Your task to perform on an android device: change the clock display to show seconds Image 0: 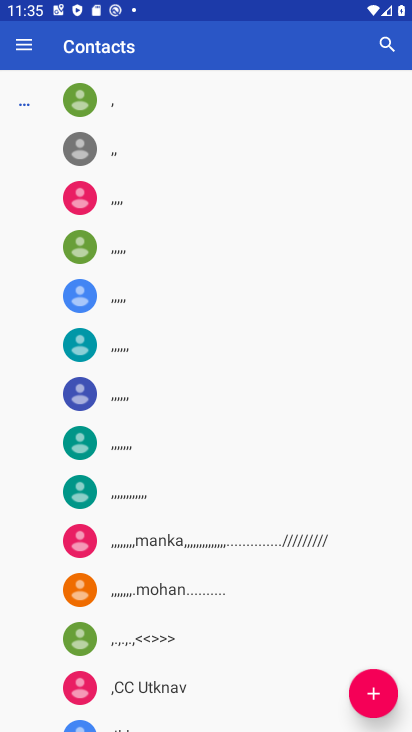
Step 0: press back button
Your task to perform on an android device: change the clock display to show seconds Image 1: 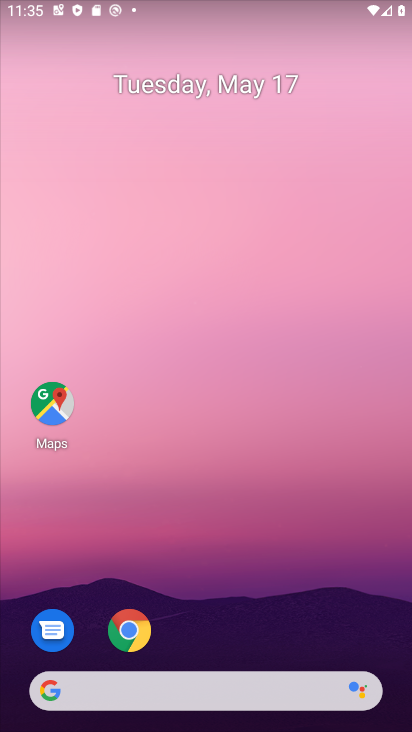
Step 1: drag from (238, 637) to (270, 162)
Your task to perform on an android device: change the clock display to show seconds Image 2: 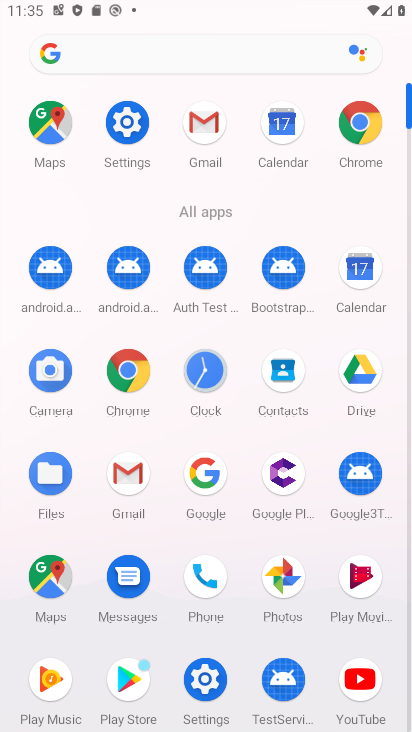
Step 2: click (196, 363)
Your task to perform on an android device: change the clock display to show seconds Image 3: 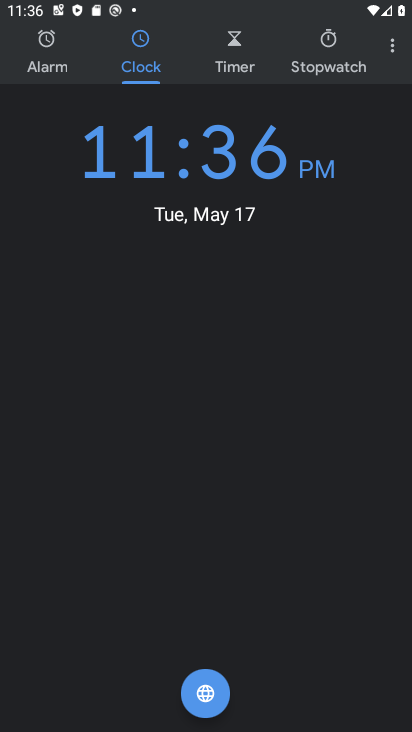
Step 3: click (392, 43)
Your task to perform on an android device: change the clock display to show seconds Image 4: 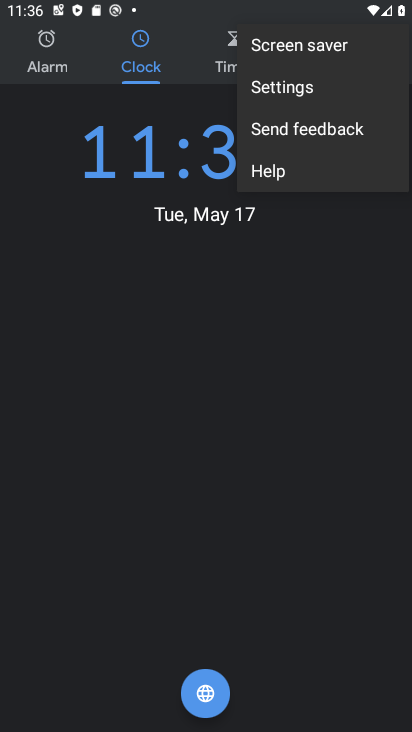
Step 4: click (294, 89)
Your task to perform on an android device: change the clock display to show seconds Image 5: 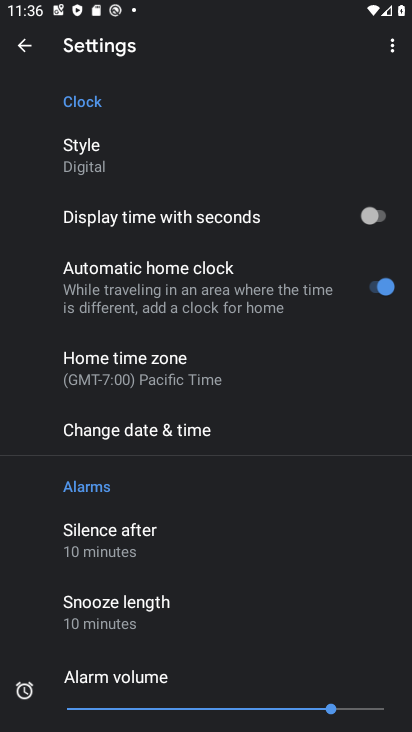
Step 5: click (384, 217)
Your task to perform on an android device: change the clock display to show seconds Image 6: 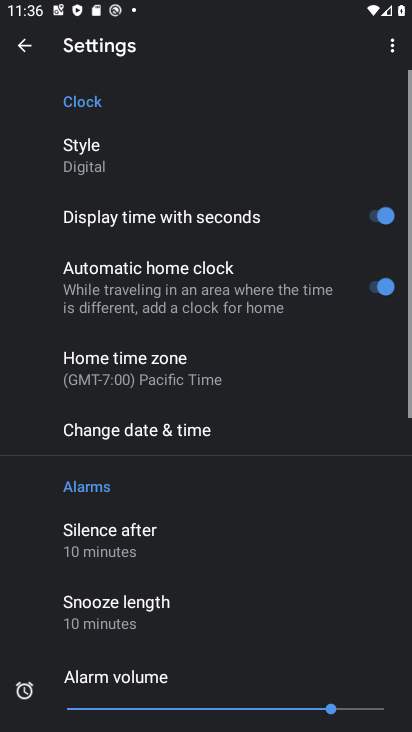
Step 6: task complete